Your task to perform on an android device: Is it going to rain tomorrow? Image 0: 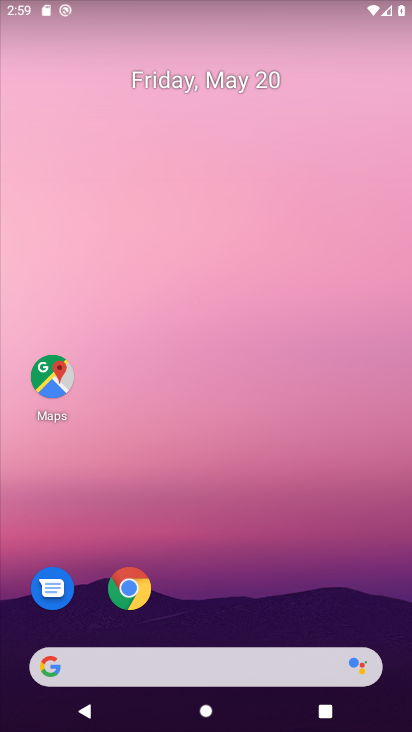
Step 0: click (131, 585)
Your task to perform on an android device: Is it going to rain tomorrow? Image 1: 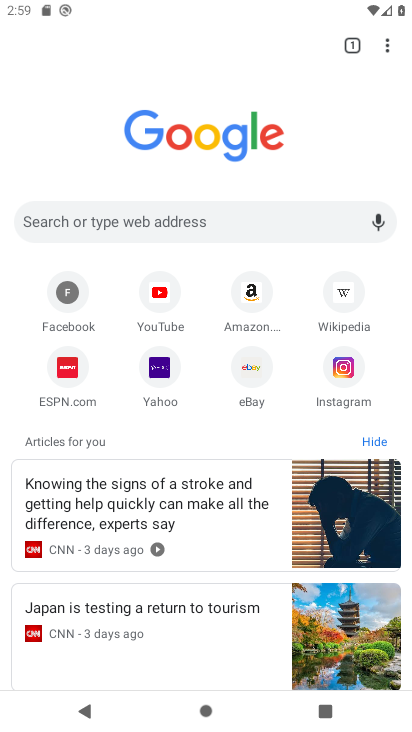
Step 1: click (174, 211)
Your task to perform on an android device: Is it going to rain tomorrow? Image 2: 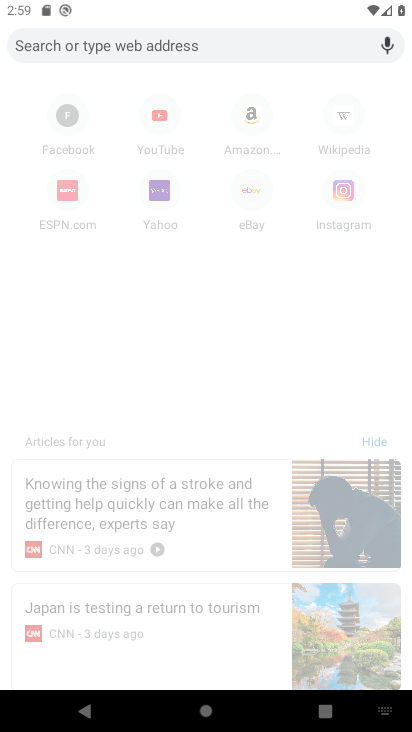
Step 2: type "weather"
Your task to perform on an android device: Is it going to rain tomorrow? Image 3: 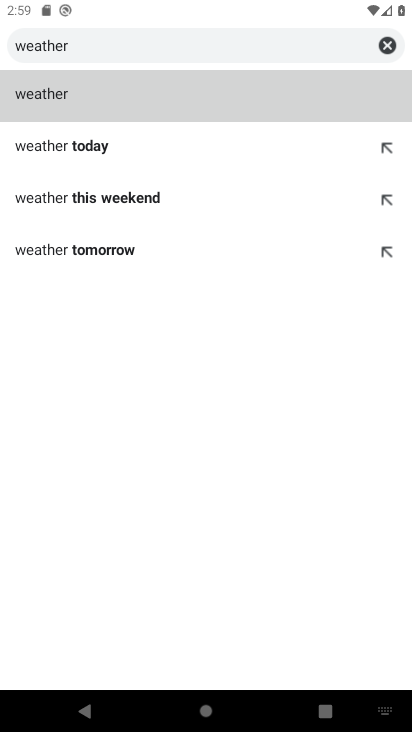
Step 3: click (38, 90)
Your task to perform on an android device: Is it going to rain tomorrow? Image 4: 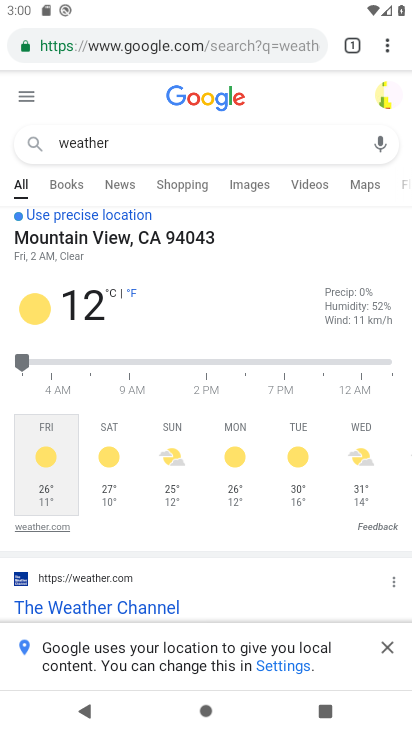
Step 4: click (116, 485)
Your task to perform on an android device: Is it going to rain tomorrow? Image 5: 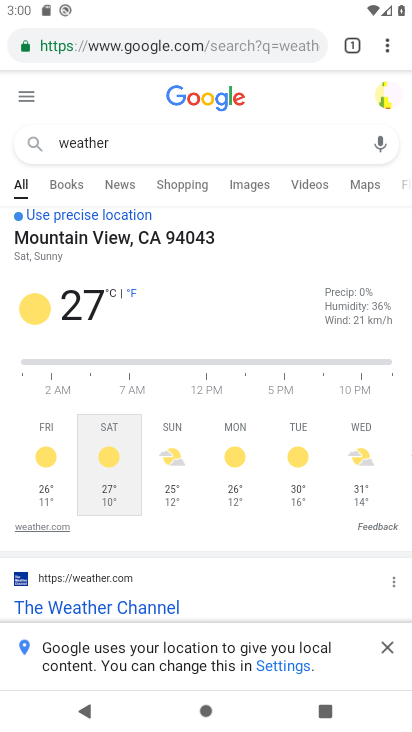
Step 5: task complete